Your task to perform on an android device: toggle improve location accuracy Image 0: 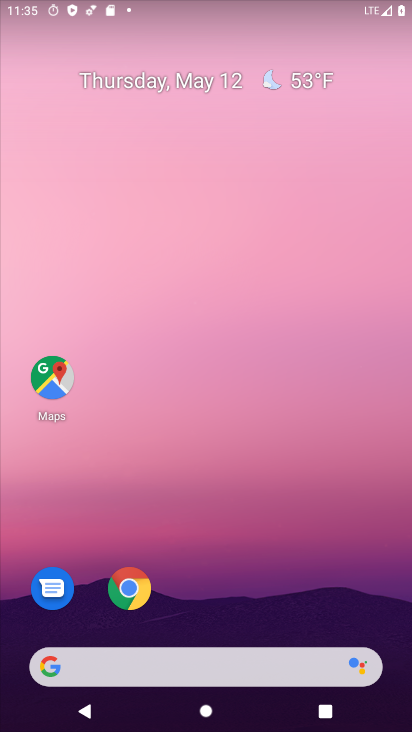
Step 0: drag from (231, 616) to (237, 88)
Your task to perform on an android device: toggle improve location accuracy Image 1: 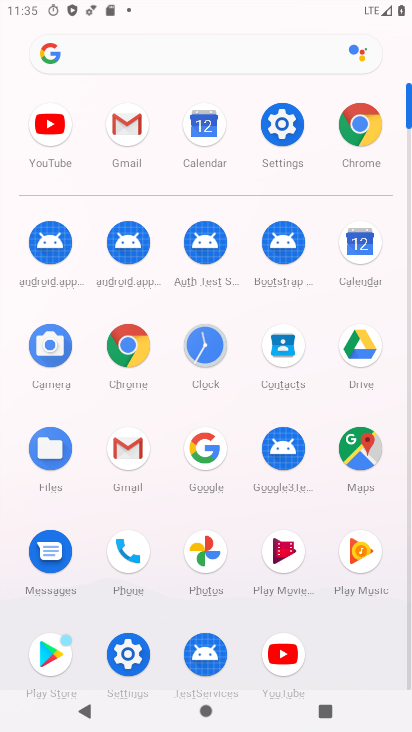
Step 1: click (277, 123)
Your task to perform on an android device: toggle improve location accuracy Image 2: 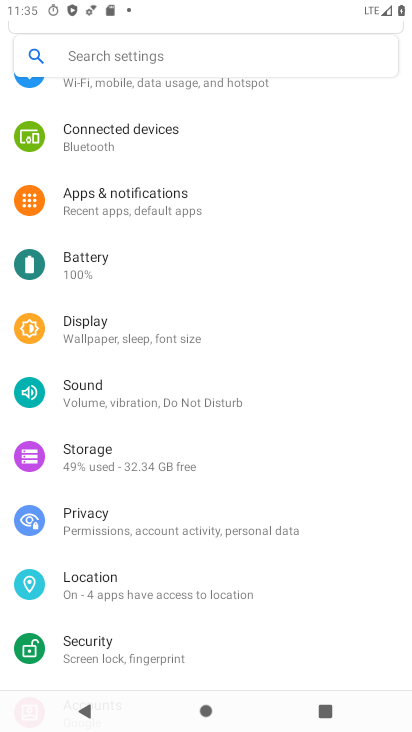
Step 2: drag from (197, 596) to (220, 265)
Your task to perform on an android device: toggle improve location accuracy Image 3: 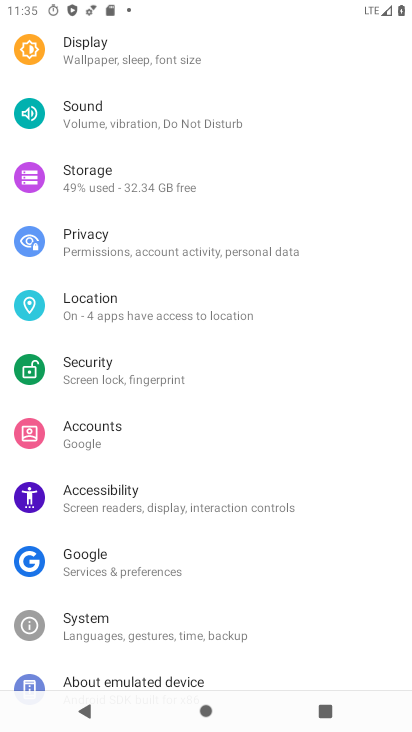
Step 3: click (134, 307)
Your task to perform on an android device: toggle improve location accuracy Image 4: 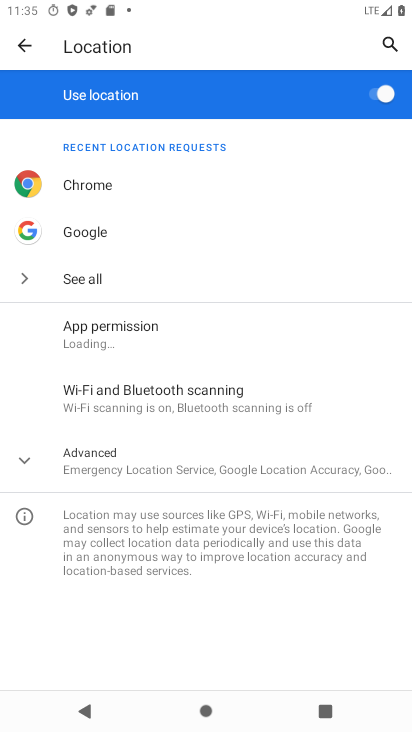
Step 4: click (122, 465)
Your task to perform on an android device: toggle improve location accuracy Image 5: 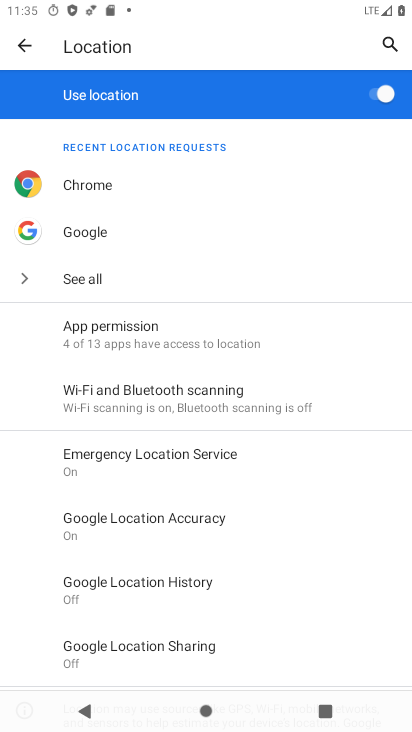
Step 5: click (193, 526)
Your task to perform on an android device: toggle improve location accuracy Image 6: 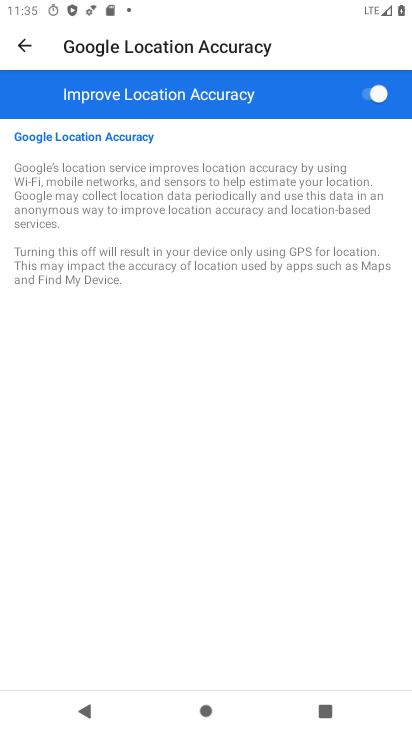
Step 6: click (378, 94)
Your task to perform on an android device: toggle improve location accuracy Image 7: 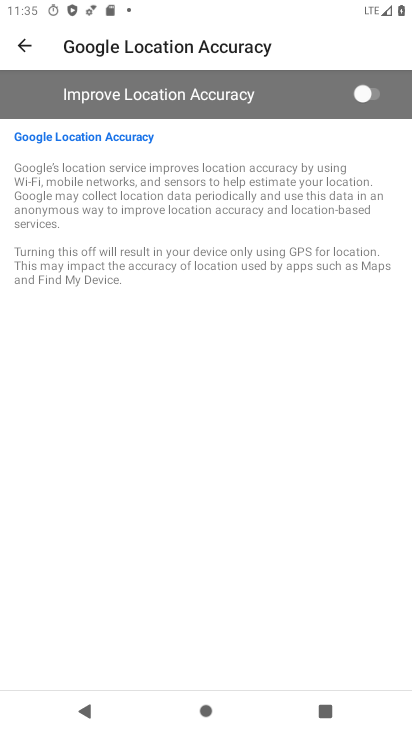
Step 7: task complete